Your task to perform on an android device: change the clock style Image 0: 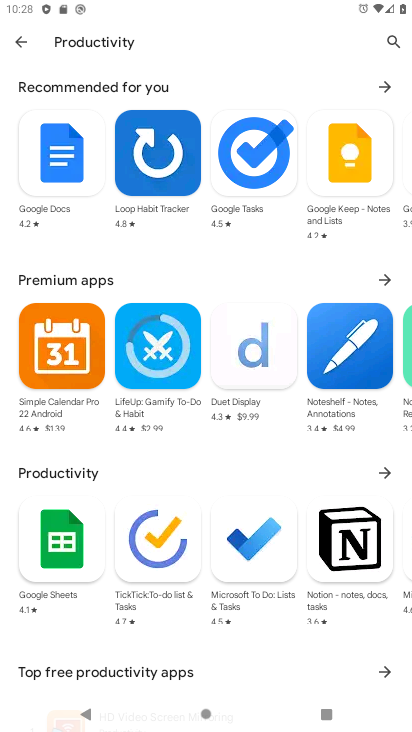
Step 0: press home button
Your task to perform on an android device: change the clock style Image 1: 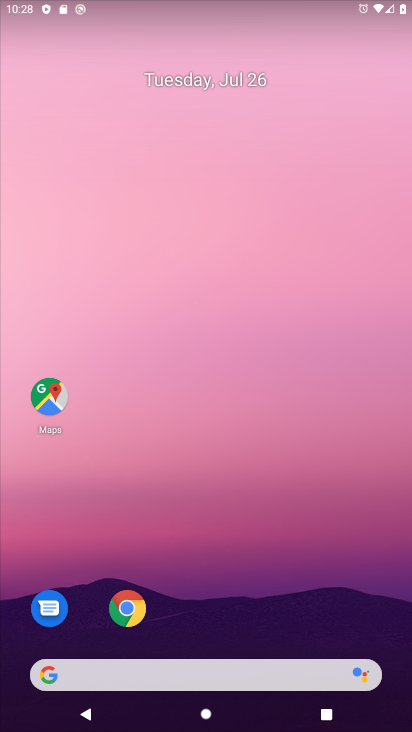
Step 1: drag from (236, 723) to (256, 281)
Your task to perform on an android device: change the clock style Image 2: 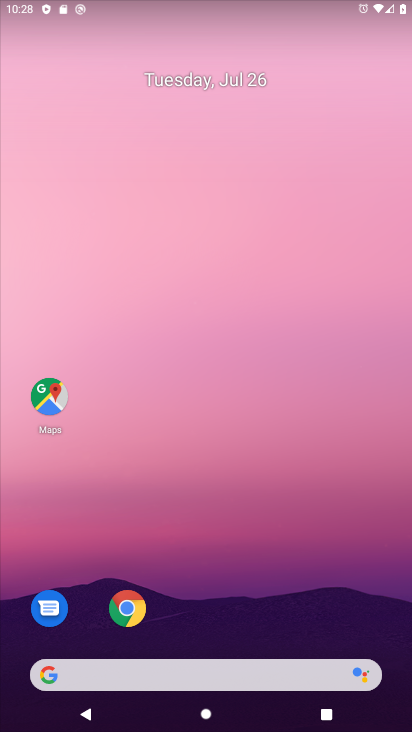
Step 2: drag from (231, 698) to (229, 169)
Your task to perform on an android device: change the clock style Image 3: 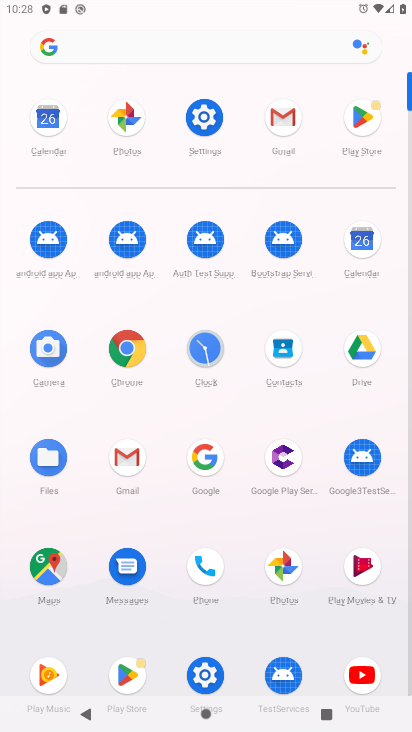
Step 3: click (200, 344)
Your task to perform on an android device: change the clock style Image 4: 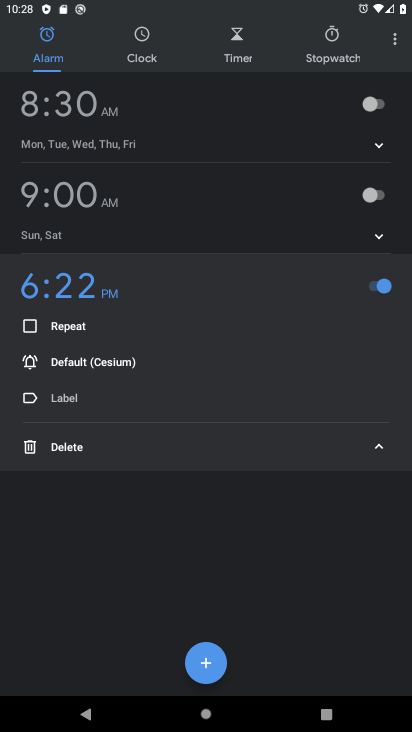
Step 4: click (397, 47)
Your task to perform on an android device: change the clock style Image 5: 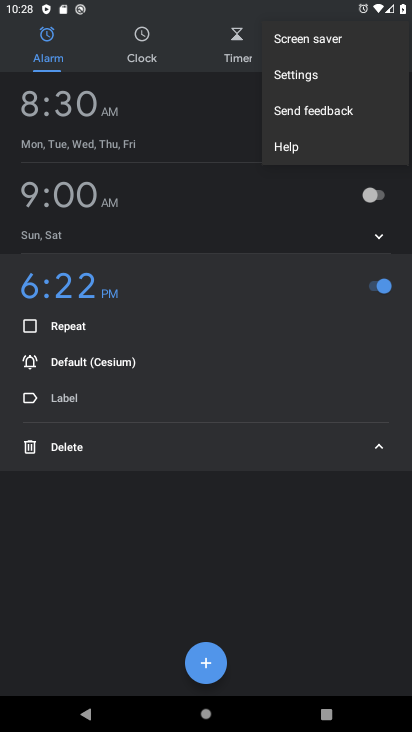
Step 5: click (299, 78)
Your task to perform on an android device: change the clock style Image 6: 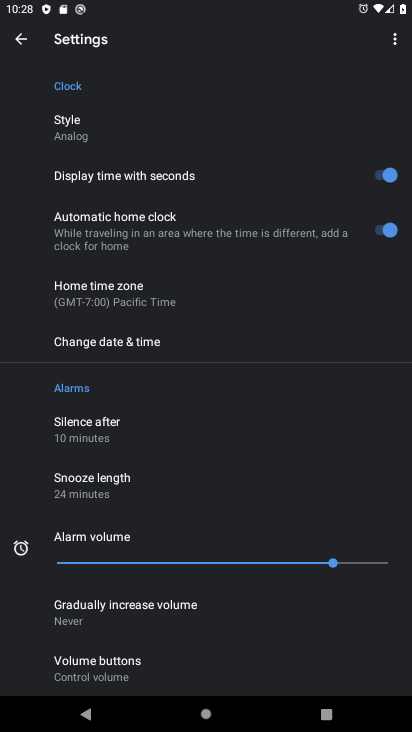
Step 6: click (74, 134)
Your task to perform on an android device: change the clock style Image 7: 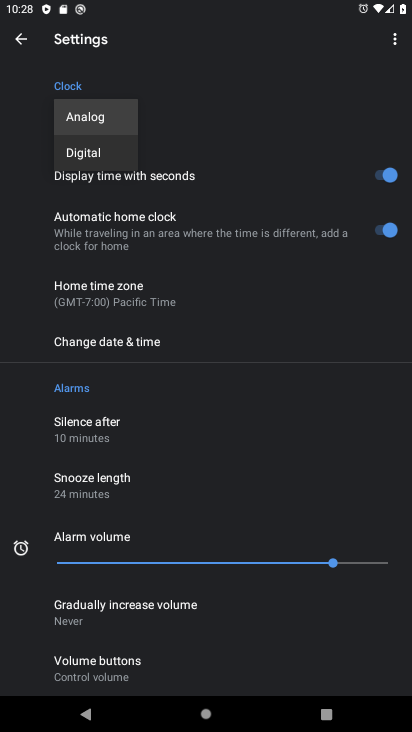
Step 7: click (79, 143)
Your task to perform on an android device: change the clock style Image 8: 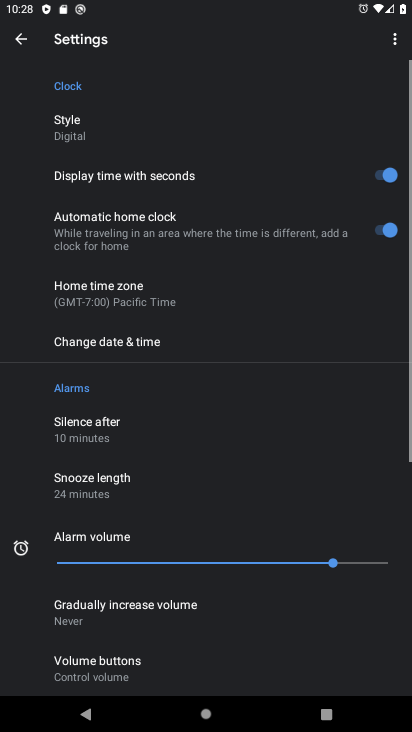
Step 8: task complete